Your task to perform on an android device: turn on the 12-hour format for clock Image 0: 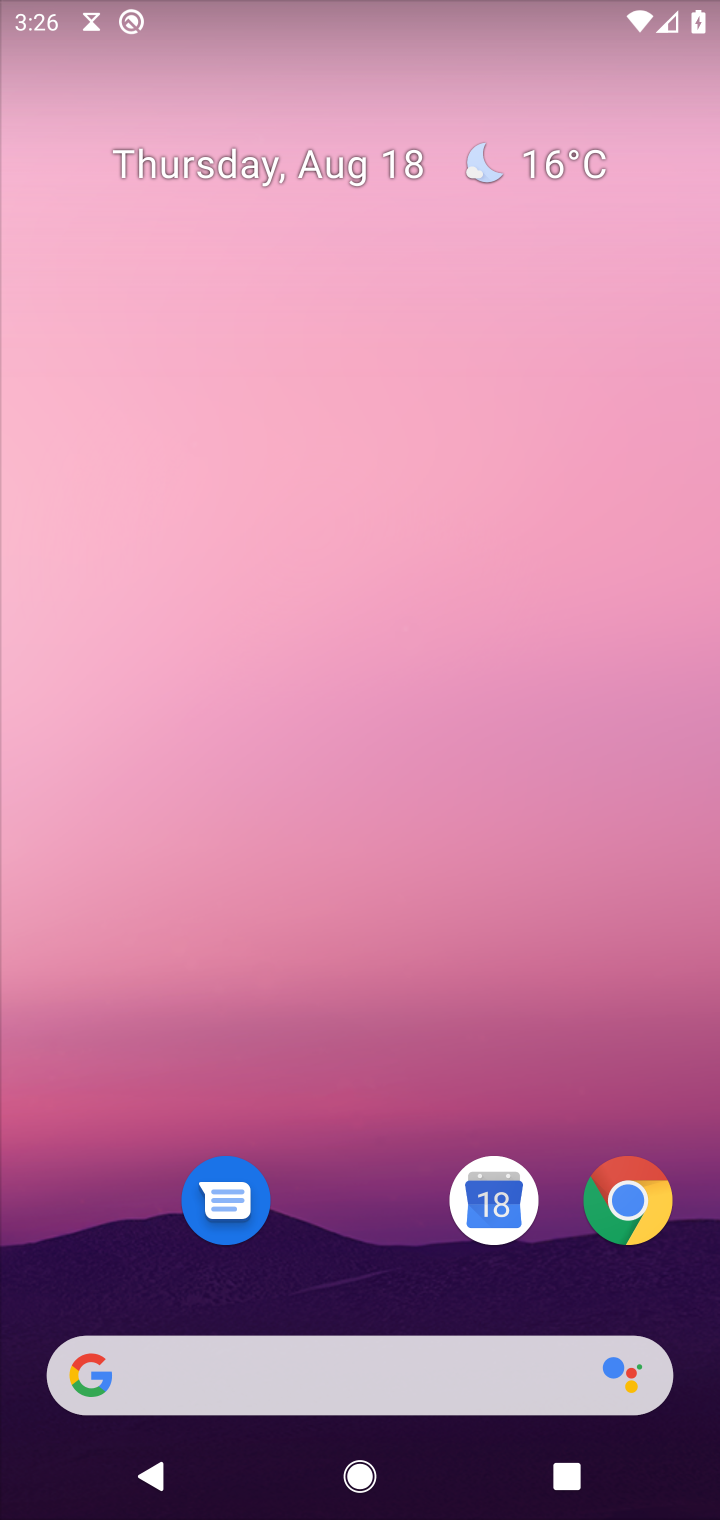
Step 0: press home button
Your task to perform on an android device: turn on the 12-hour format for clock Image 1: 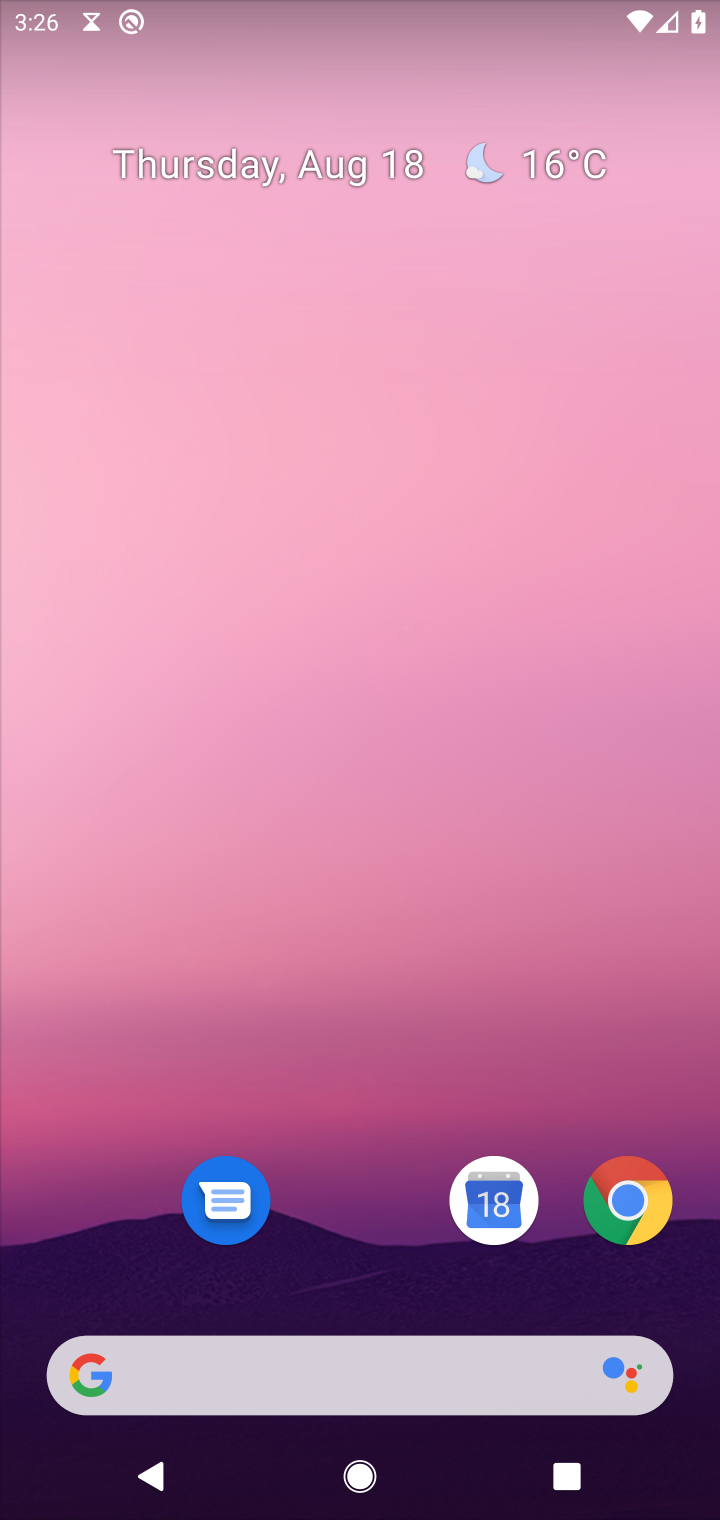
Step 1: drag from (415, 871) to (448, 137)
Your task to perform on an android device: turn on the 12-hour format for clock Image 2: 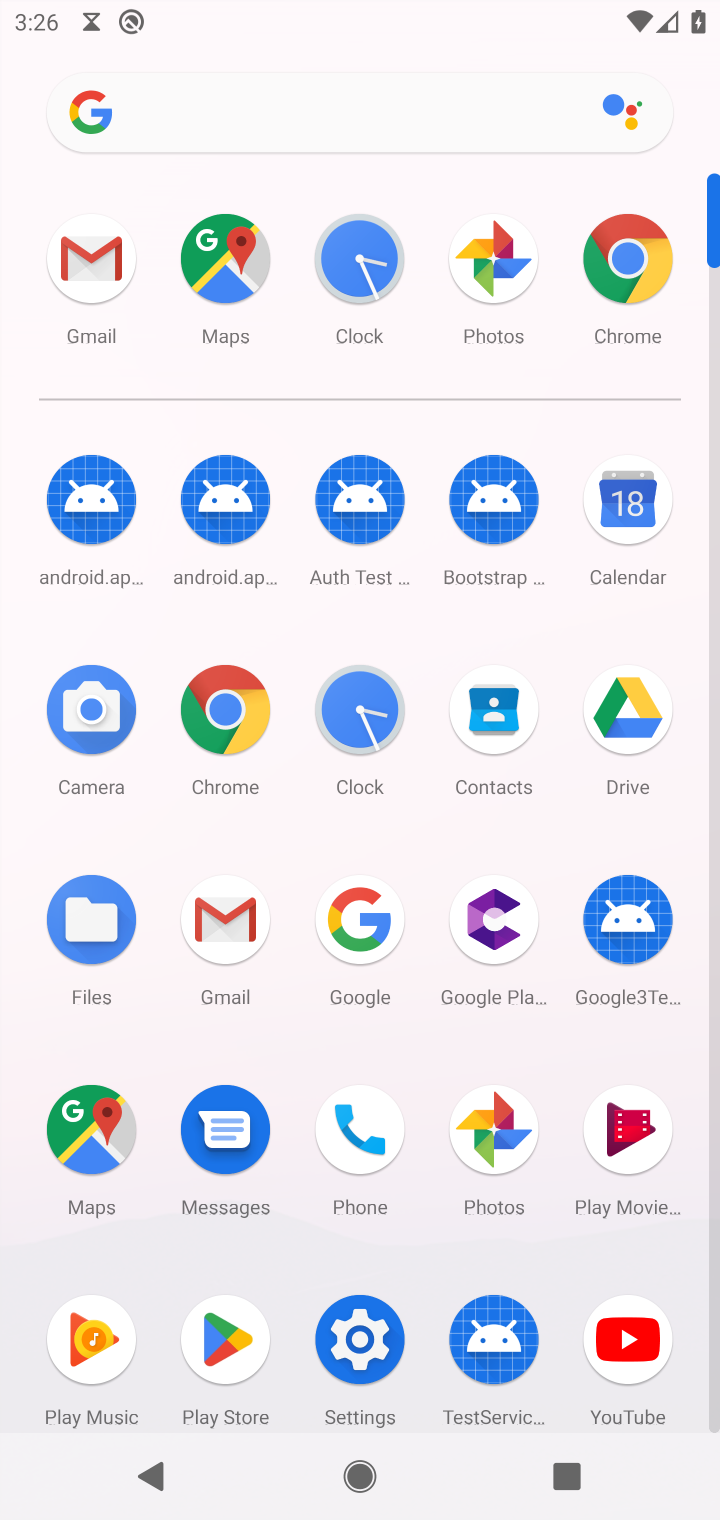
Step 2: click (354, 1351)
Your task to perform on an android device: turn on the 12-hour format for clock Image 3: 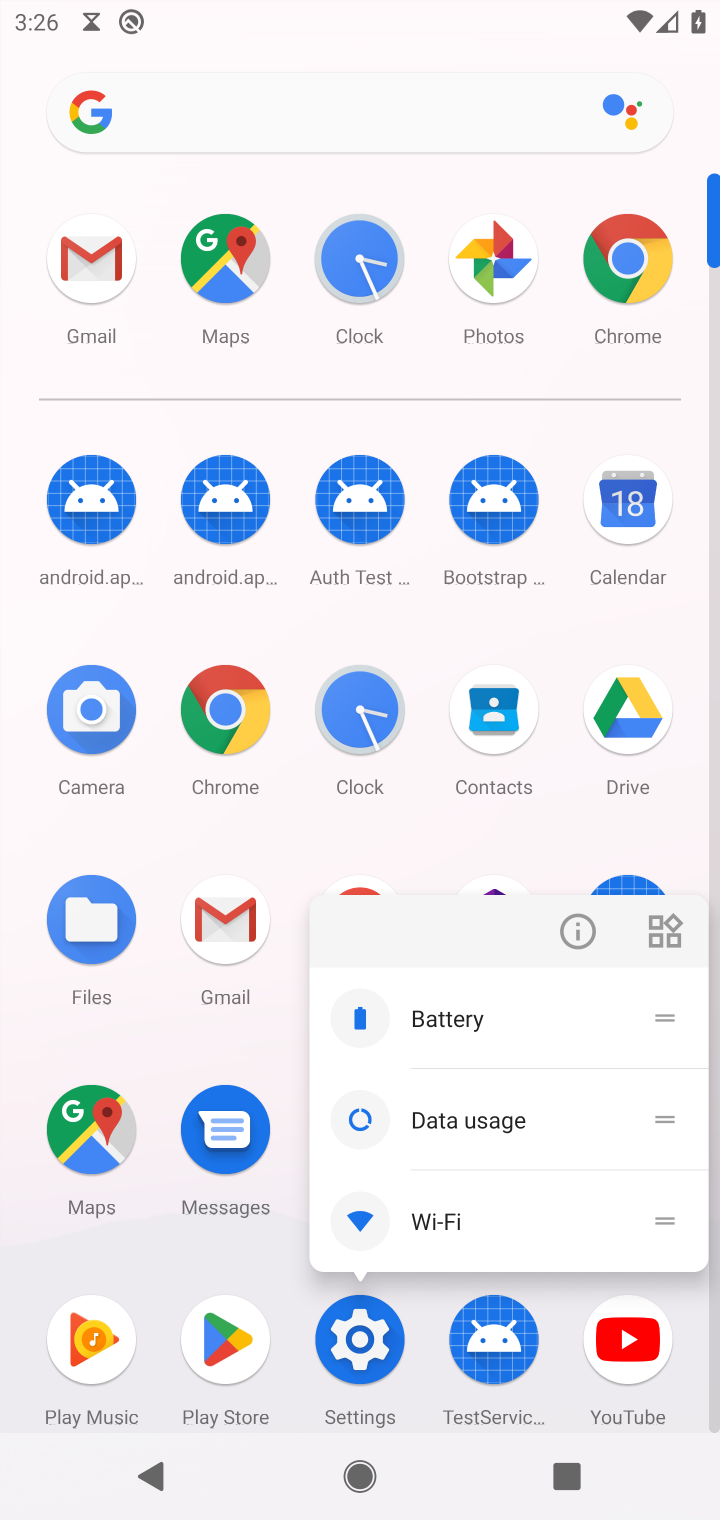
Step 3: click (379, 709)
Your task to perform on an android device: turn on the 12-hour format for clock Image 4: 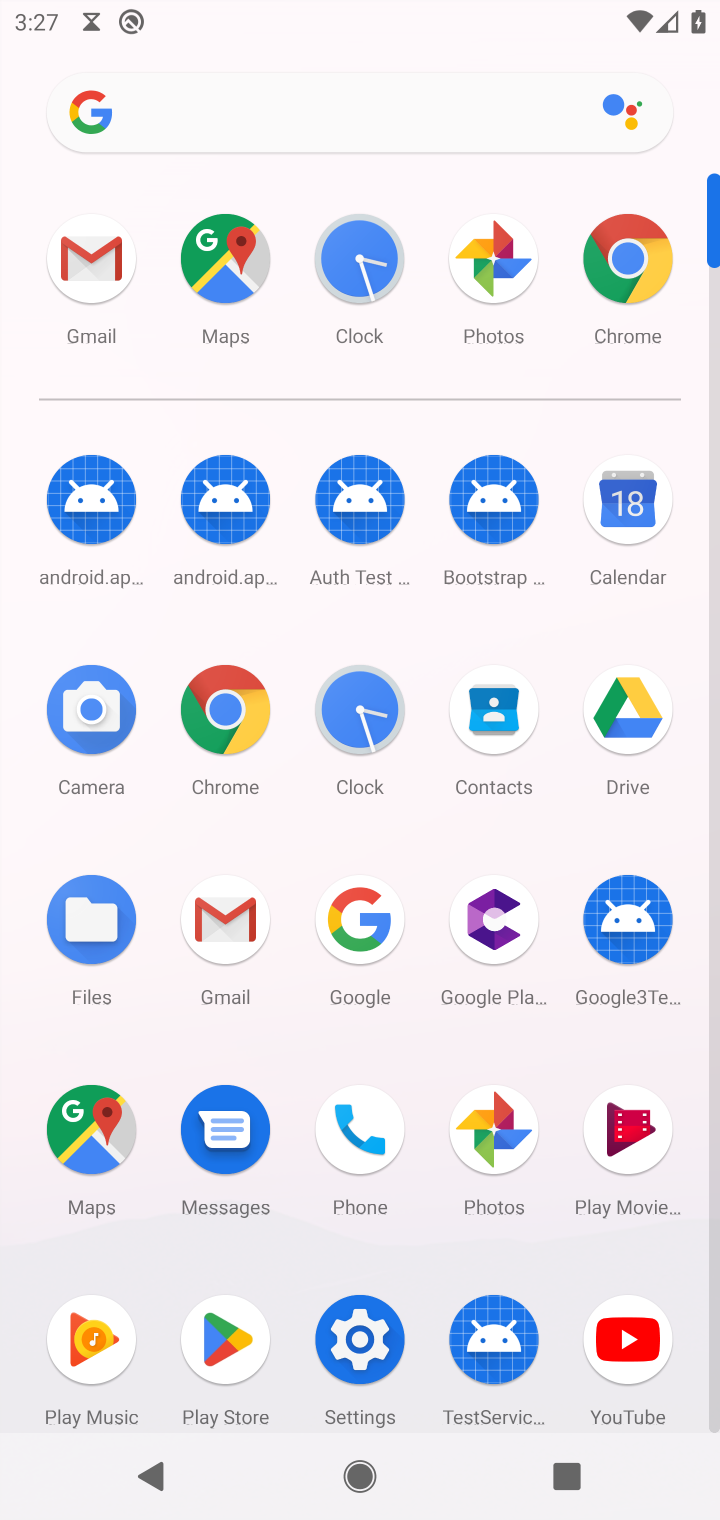
Step 4: click (379, 709)
Your task to perform on an android device: turn on the 12-hour format for clock Image 5: 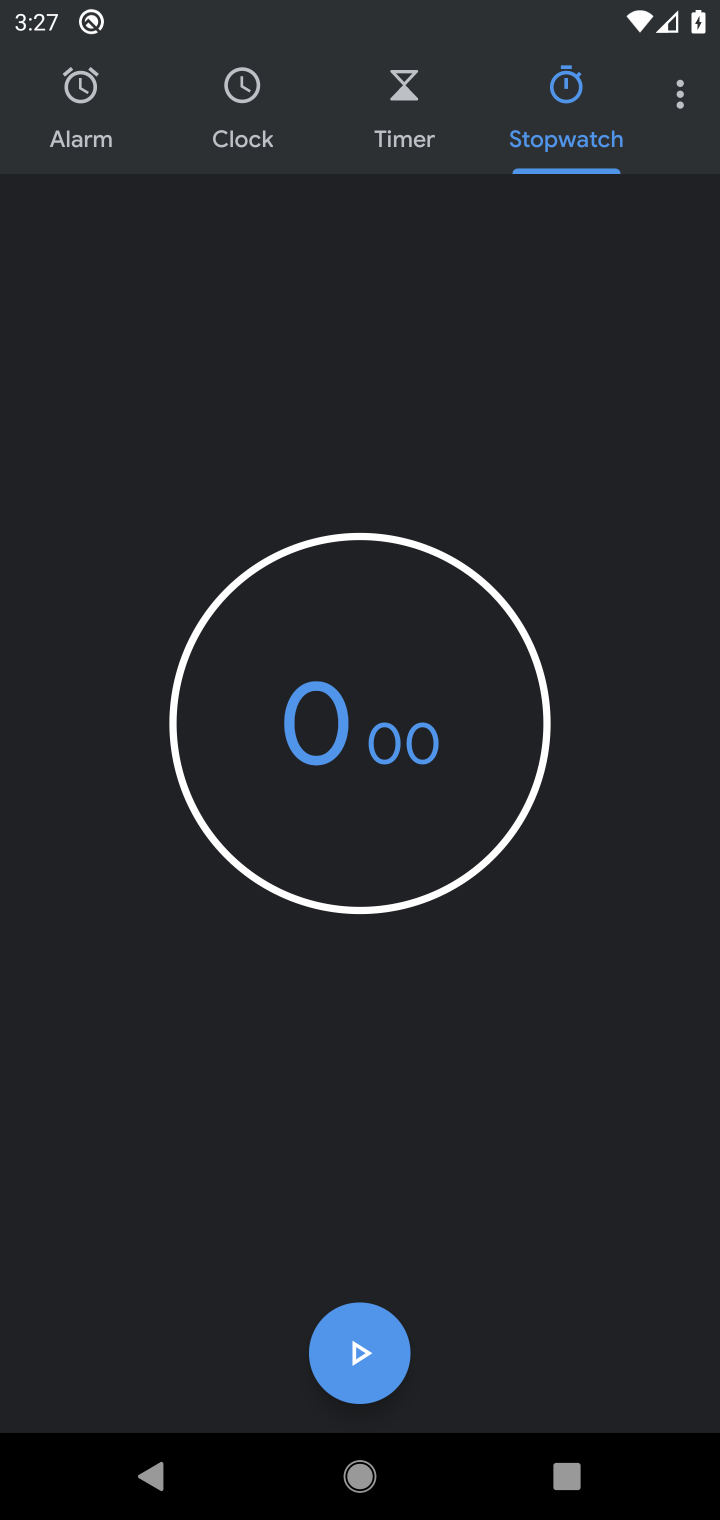
Step 5: click (676, 94)
Your task to perform on an android device: turn on the 12-hour format for clock Image 6: 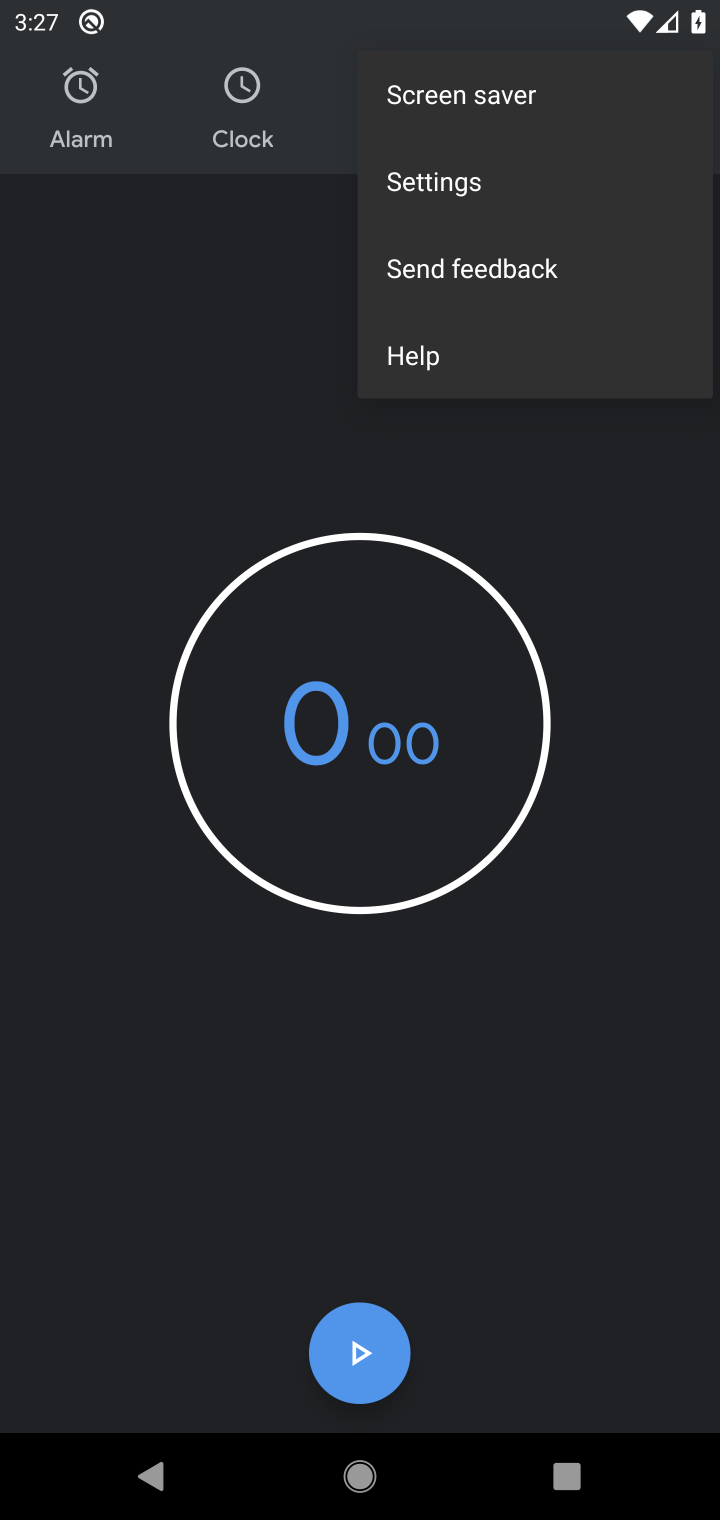
Step 6: click (454, 187)
Your task to perform on an android device: turn on the 12-hour format for clock Image 7: 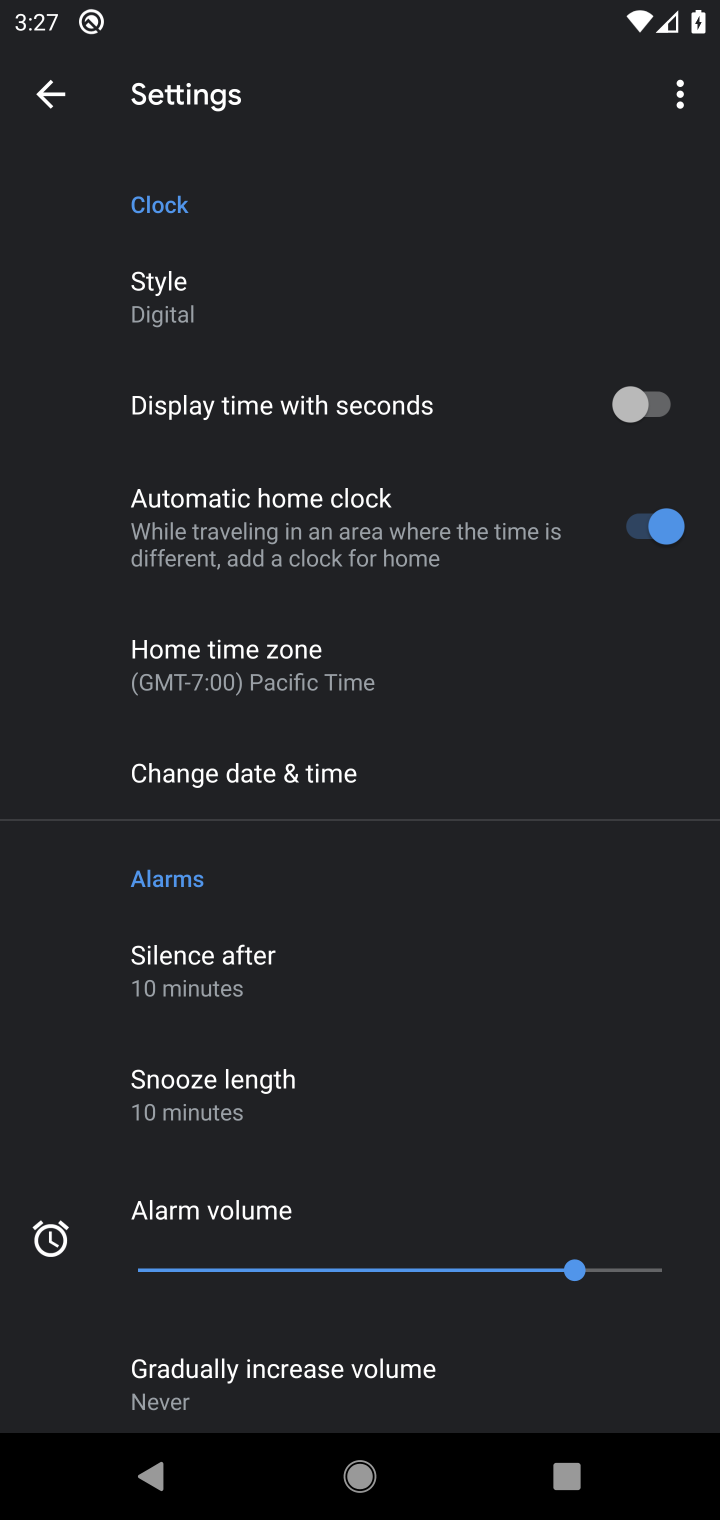
Step 7: click (301, 747)
Your task to perform on an android device: turn on the 12-hour format for clock Image 8: 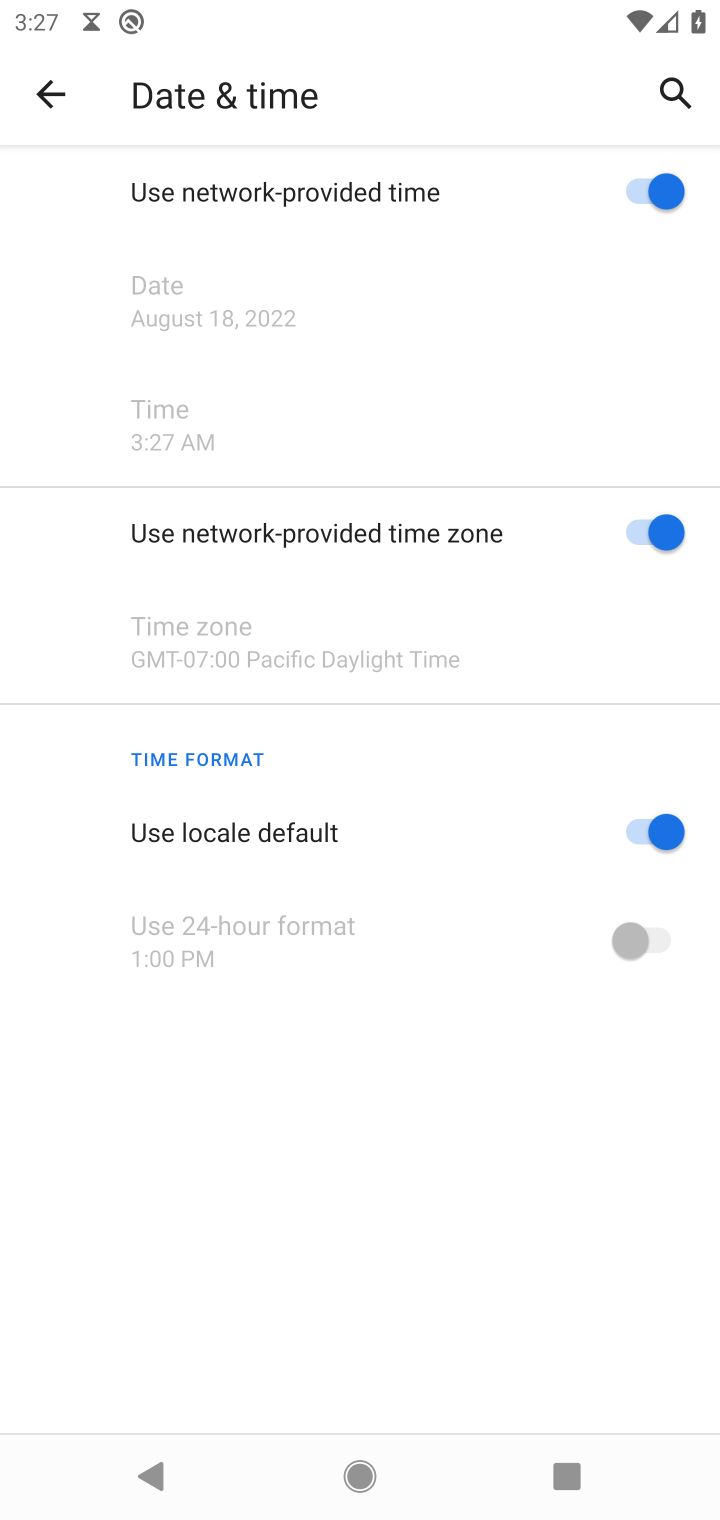
Step 8: task complete